Your task to perform on an android device: Open Chrome and go to the settings page Image 0: 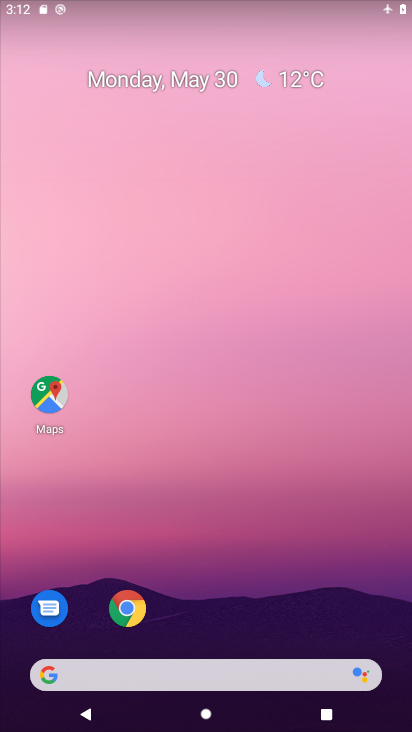
Step 0: click (127, 604)
Your task to perform on an android device: Open Chrome and go to the settings page Image 1: 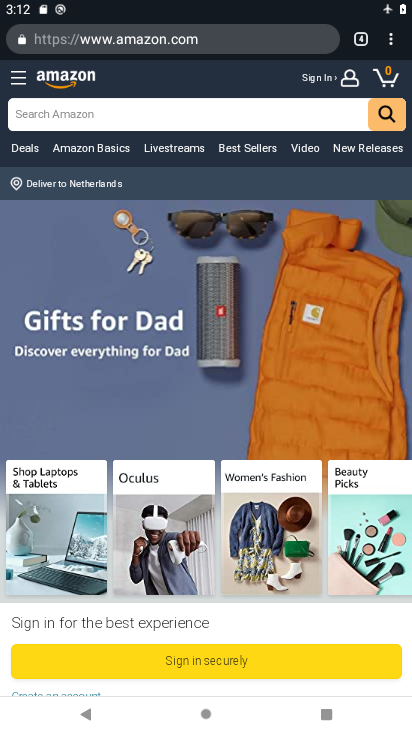
Step 1: click (398, 42)
Your task to perform on an android device: Open Chrome and go to the settings page Image 2: 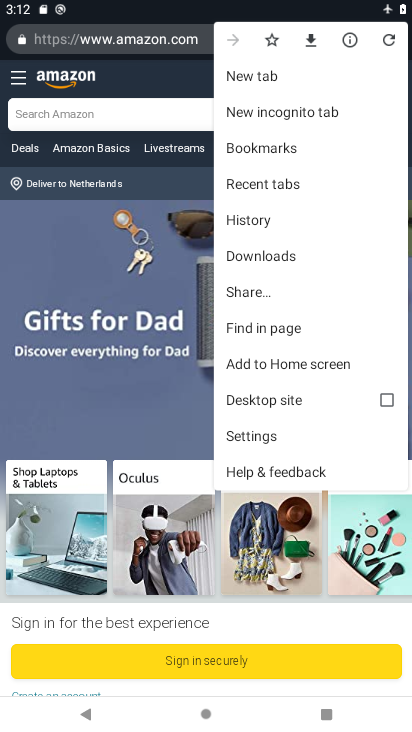
Step 2: click (282, 435)
Your task to perform on an android device: Open Chrome and go to the settings page Image 3: 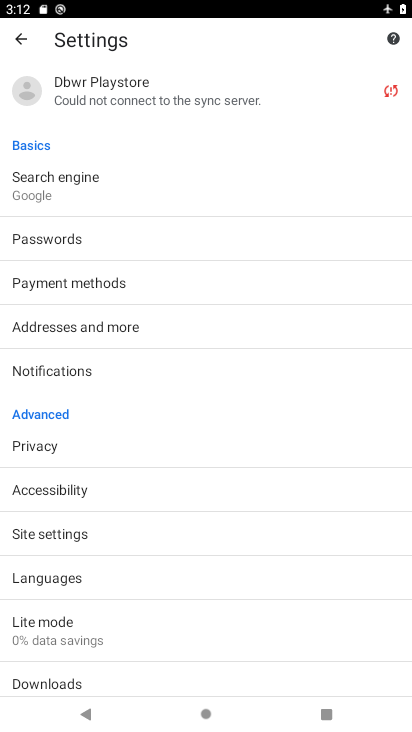
Step 3: task complete